Your task to perform on an android device: Go to Android settings Image 0: 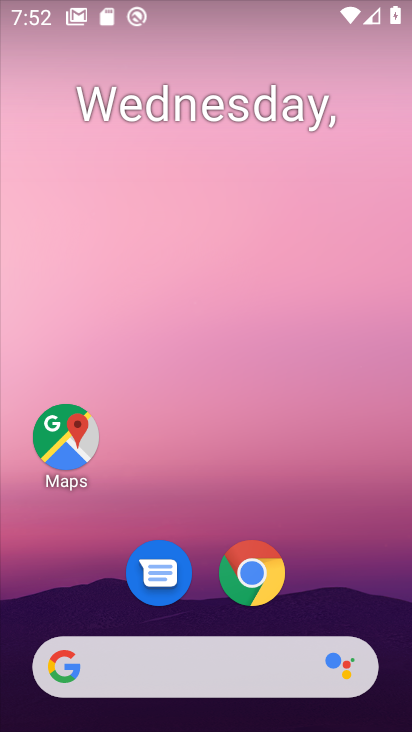
Step 0: drag from (322, 626) to (305, 55)
Your task to perform on an android device: Go to Android settings Image 1: 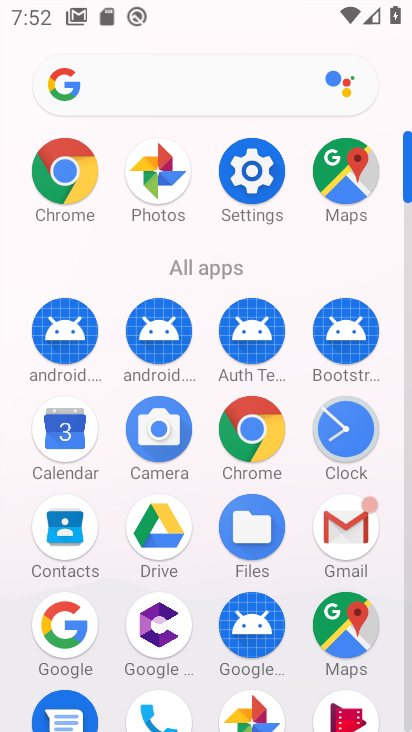
Step 1: click (252, 173)
Your task to perform on an android device: Go to Android settings Image 2: 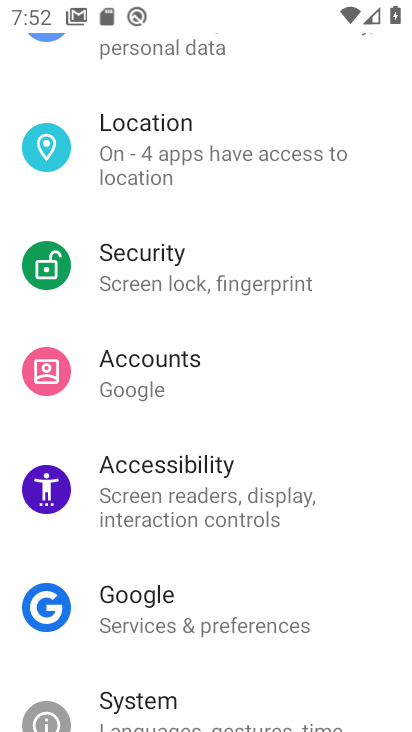
Step 2: task complete